Your task to perform on an android device: Show me the best rated coffee table on Ikea Image 0: 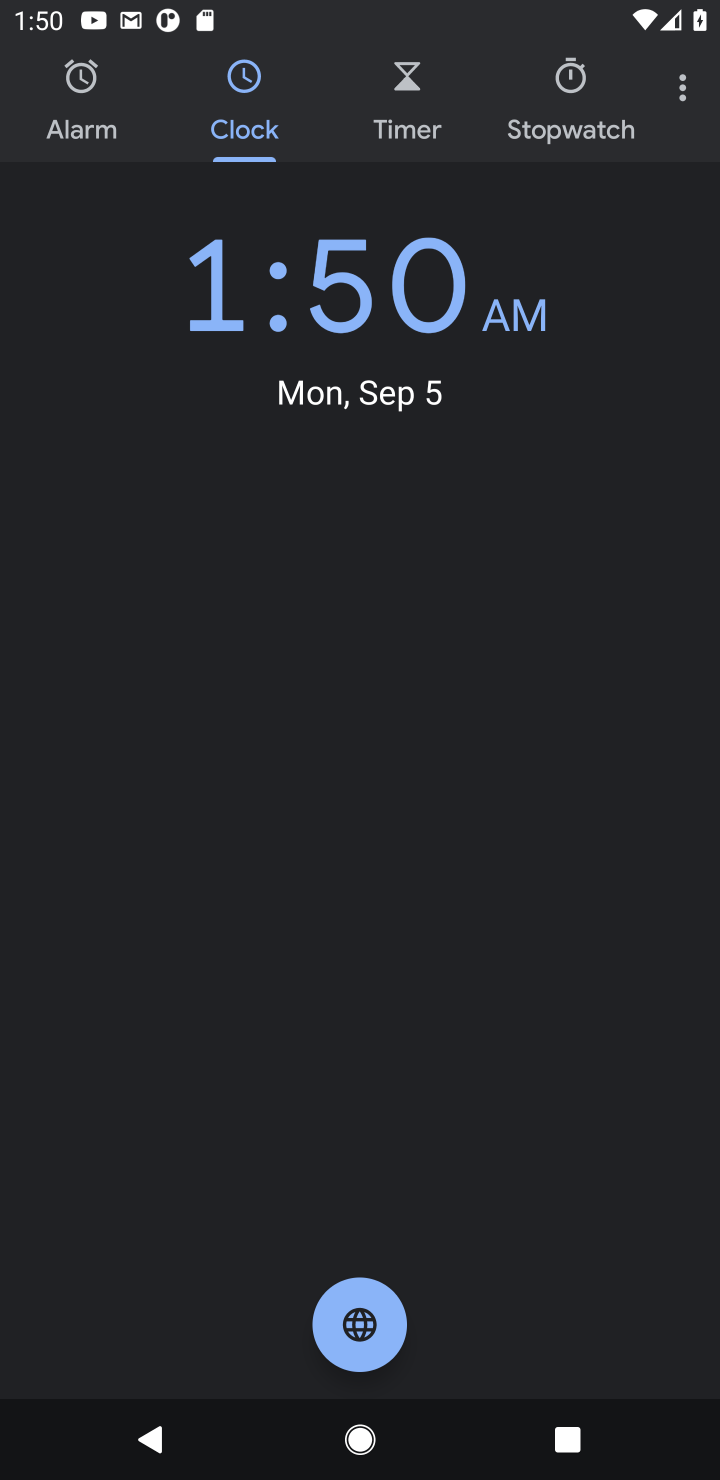
Step 0: click (558, 105)
Your task to perform on an android device: Show me the best rated coffee table on Ikea Image 1: 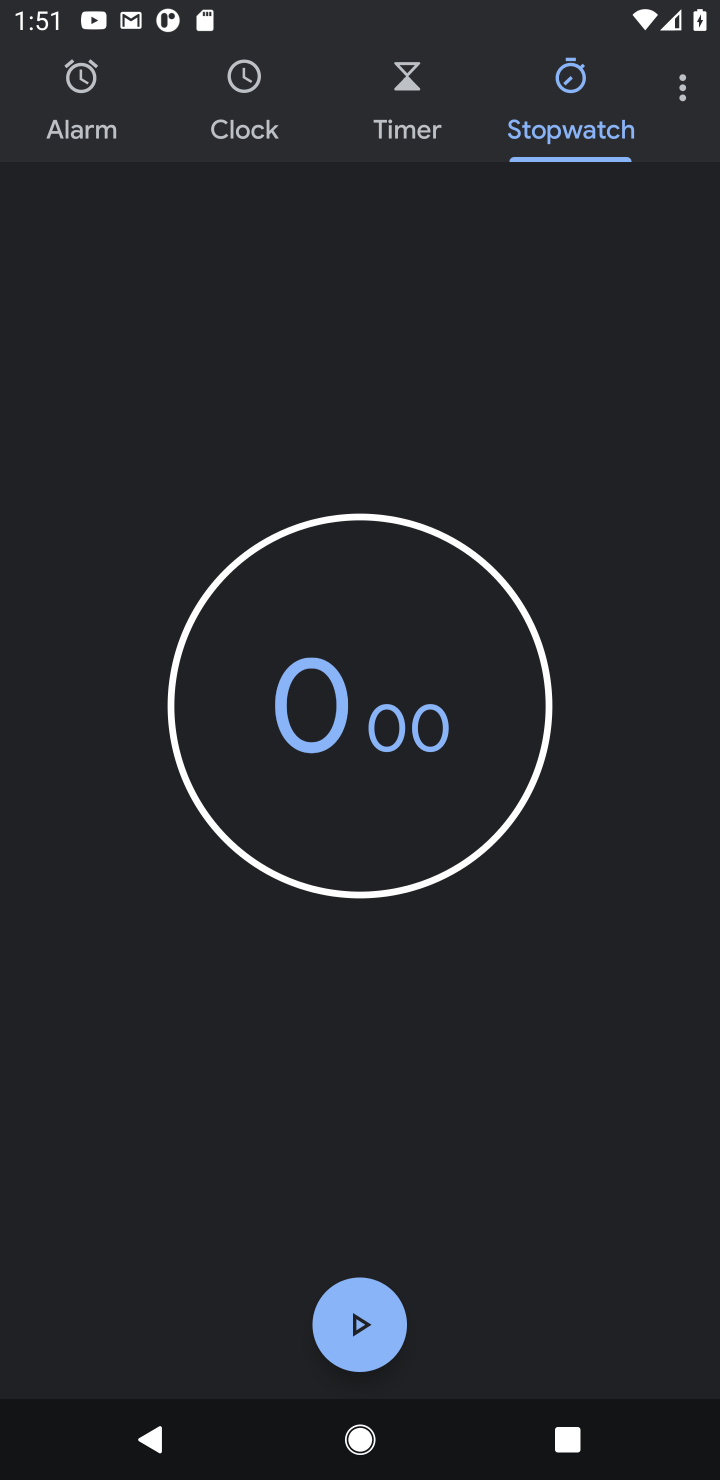
Step 1: click (598, 104)
Your task to perform on an android device: Show me the best rated coffee table on Ikea Image 2: 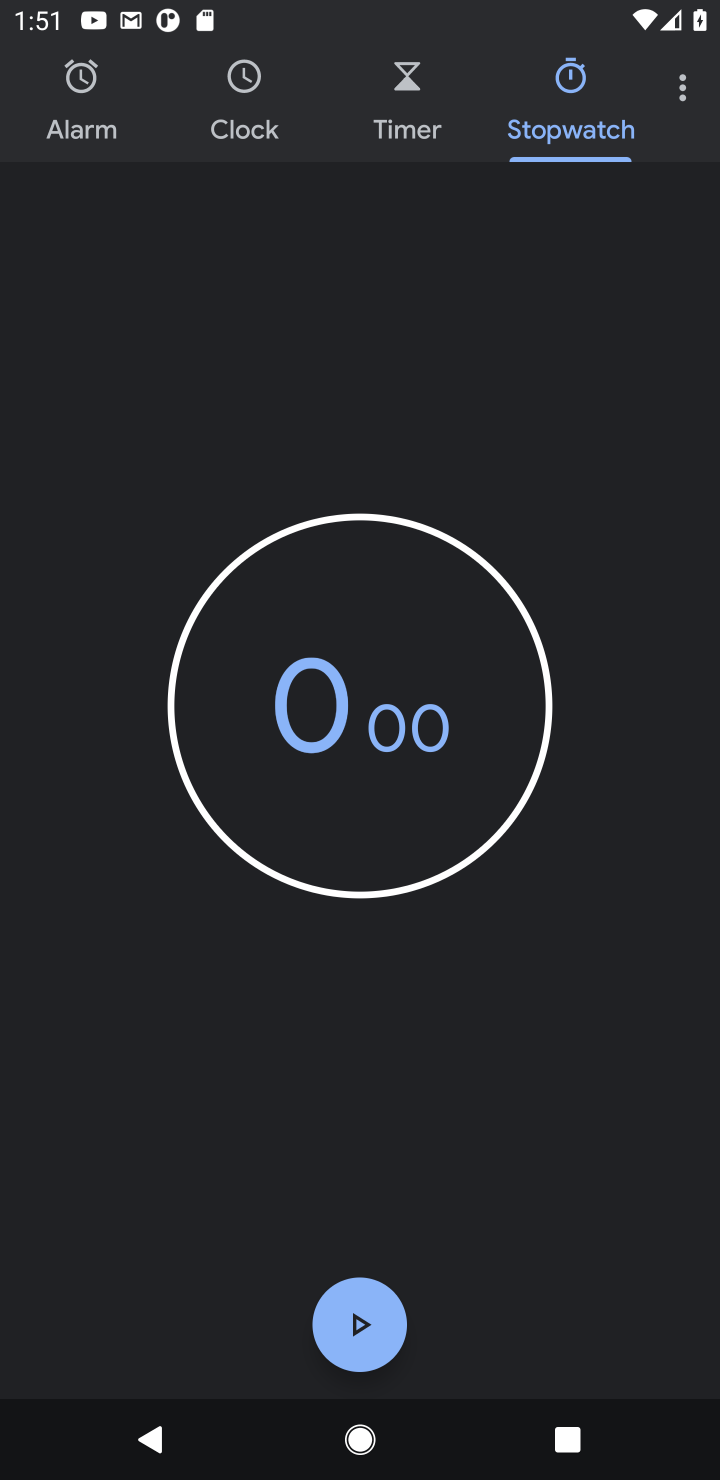
Step 2: task complete